Your task to perform on an android device: turn off sleep mode Image 0: 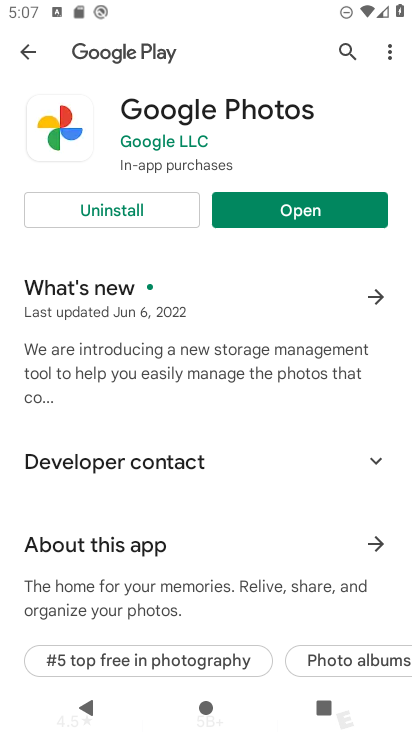
Step 0: press home button
Your task to perform on an android device: turn off sleep mode Image 1: 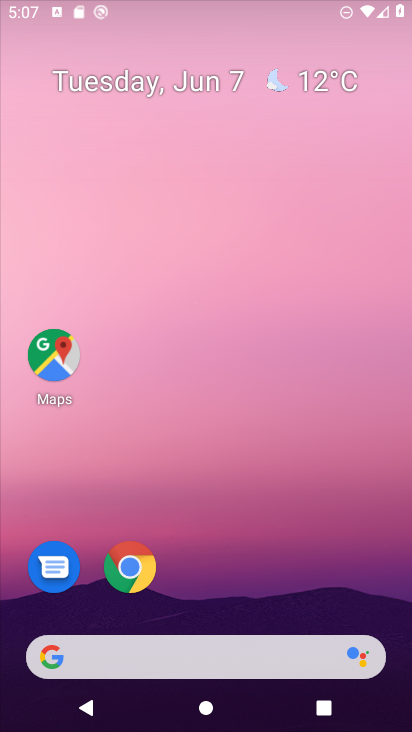
Step 1: drag from (268, 649) to (288, 100)
Your task to perform on an android device: turn off sleep mode Image 2: 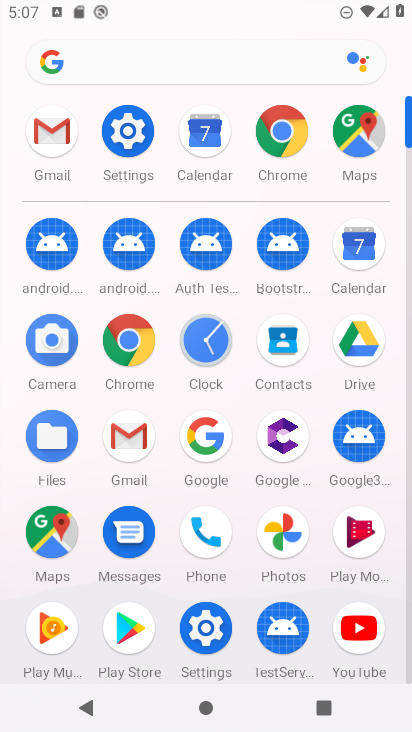
Step 2: click (100, 127)
Your task to perform on an android device: turn off sleep mode Image 3: 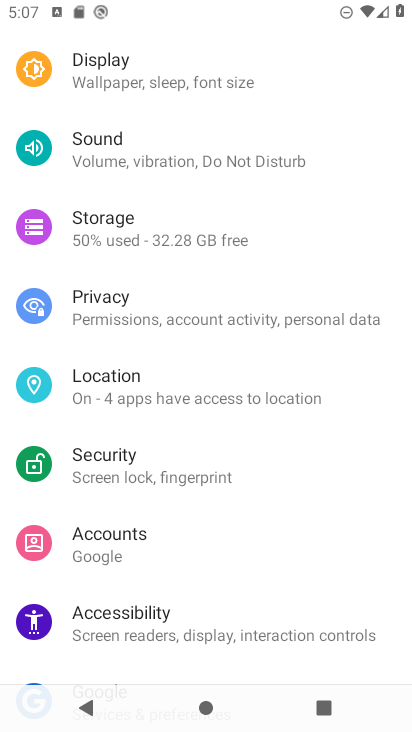
Step 3: drag from (328, 198) to (276, 631)
Your task to perform on an android device: turn off sleep mode Image 4: 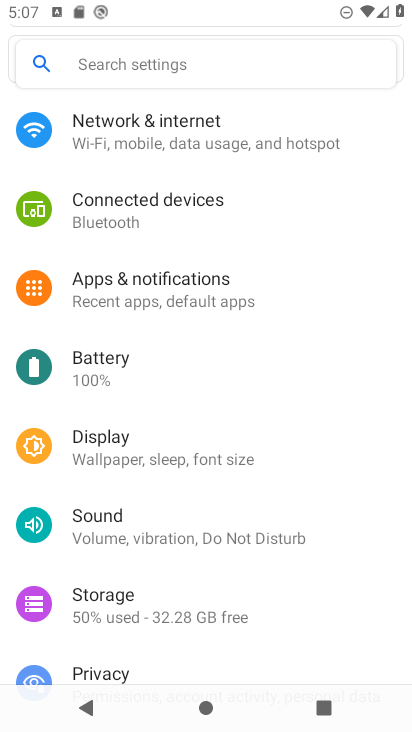
Step 4: drag from (207, 249) to (223, 288)
Your task to perform on an android device: turn off sleep mode Image 5: 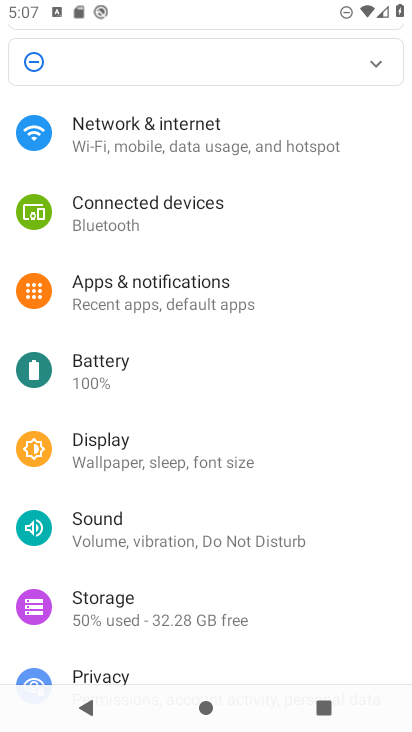
Step 5: click (150, 440)
Your task to perform on an android device: turn off sleep mode Image 6: 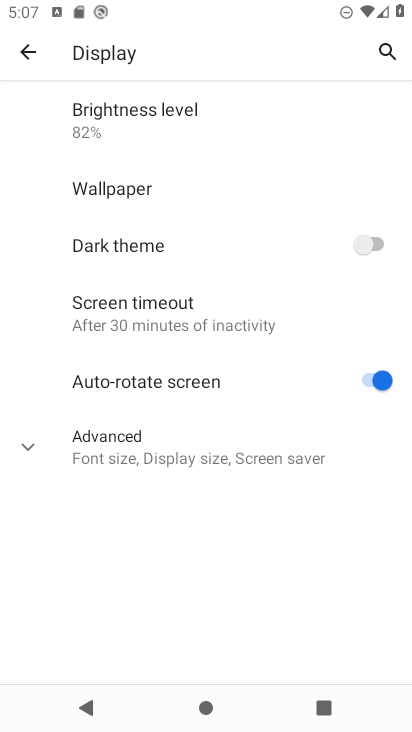
Step 6: task complete